Your task to perform on an android device: turn off notifications settings in the gmail app Image 0: 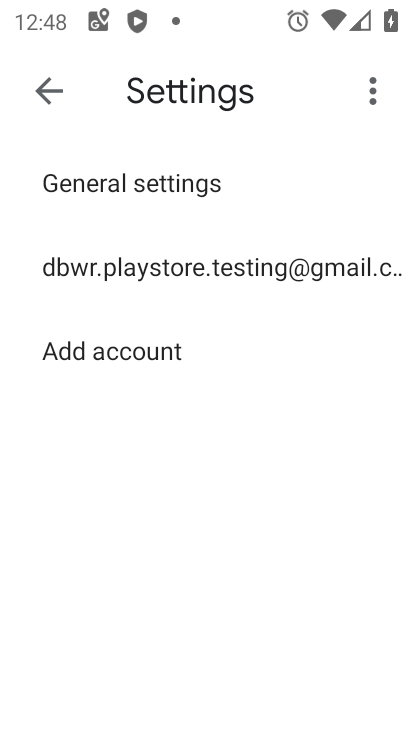
Step 0: press home button
Your task to perform on an android device: turn off notifications settings in the gmail app Image 1: 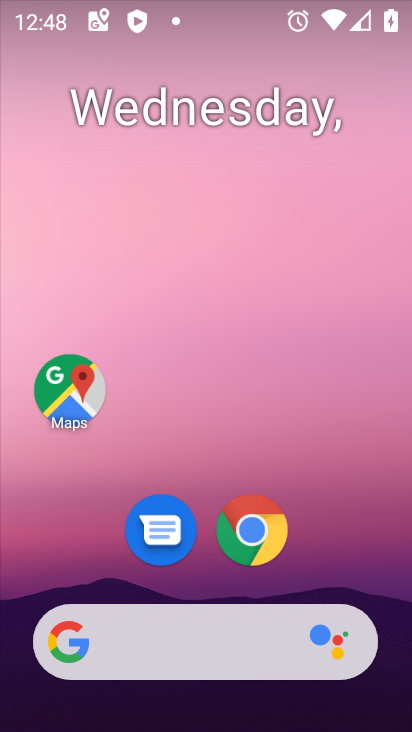
Step 1: drag from (214, 487) to (251, 203)
Your task to perform on an android device: turn off notifications settings in the gmail app Image 2: 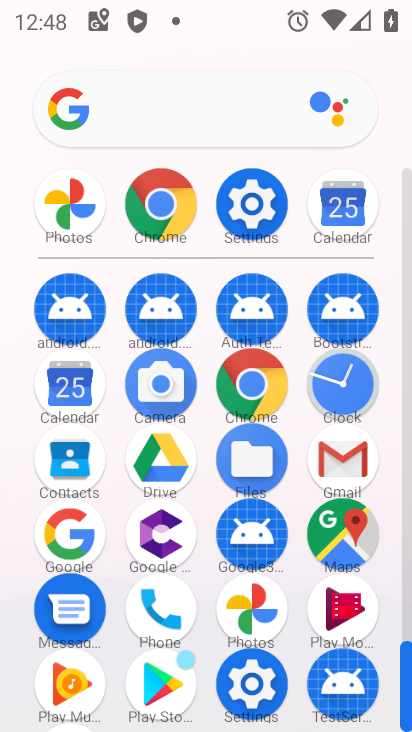
Step 2: click (358, 463)
Your task to perform on an android device: turn off notifications settings in the gmail app Image 3: 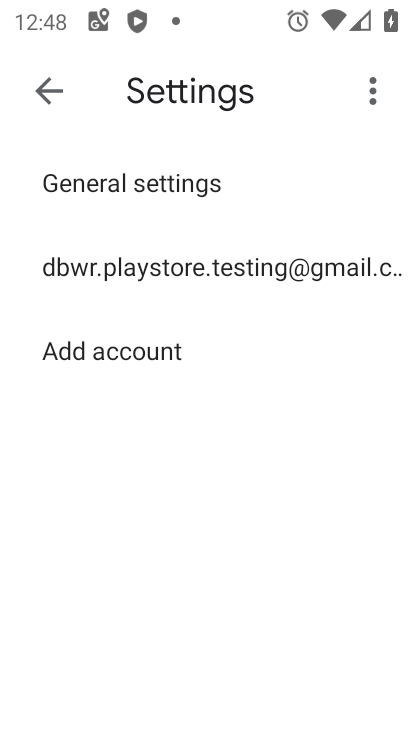
Step 3: click (246, 287)
Your task to perform on an android device: turn off notifications settings in the gmail app Image 4: 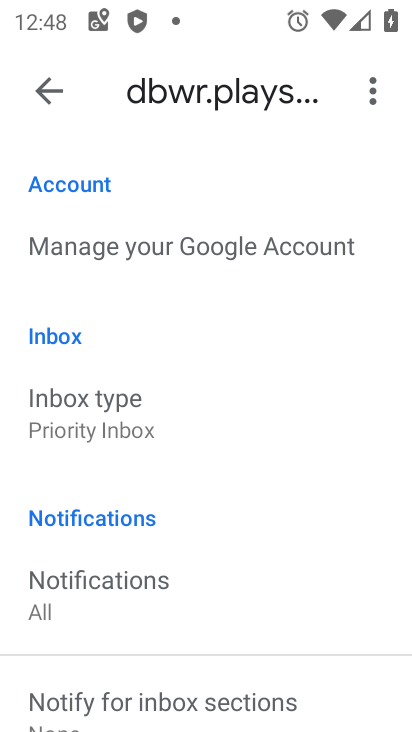
Step 4: click (72, 595)
Your task to perform on an android device: turn off notifications settings in the gmail app Image 5: 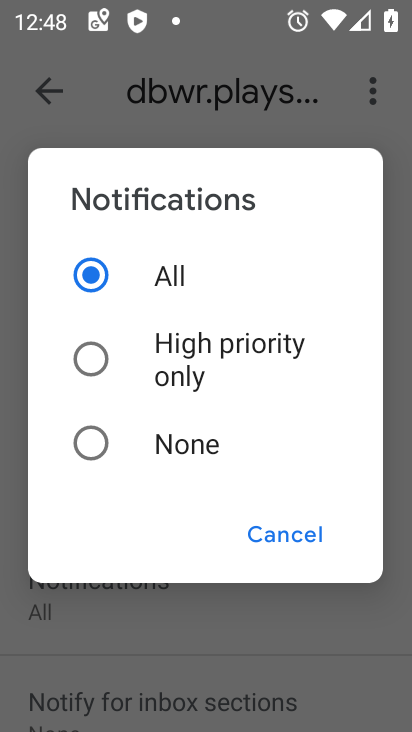
Step 5: click (184, 408)
Your task to perform on an android device: turn off notifications settings in the gmail app Image 6: 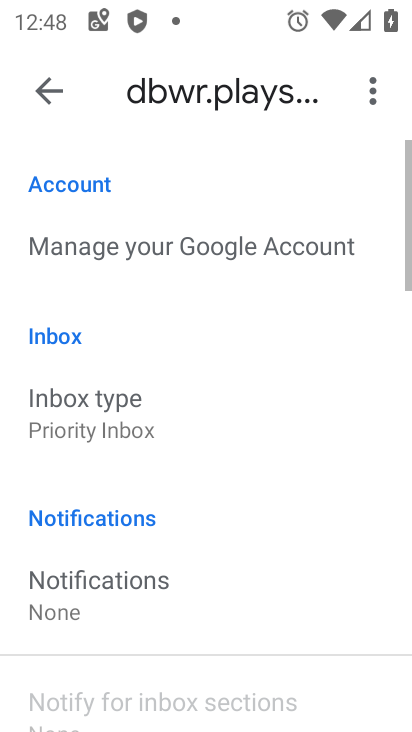
Step 6: click (171, 422)
Your task to perform on an android device: turn off notifications settings in the gmail app Image 7: 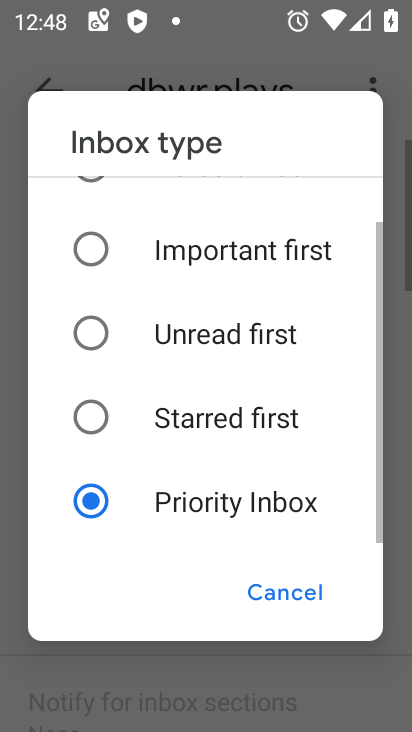
Step 7: task complete